Your task to perform on an android device: star an email in the gmail app Image 0: 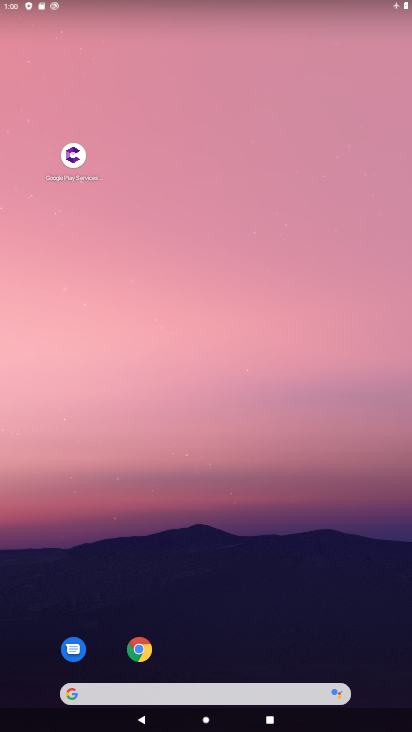
Step 0: drag from (227, 580) to (251, 163)
Your task to perform on an android device: star an email in the gmail app Image 1: 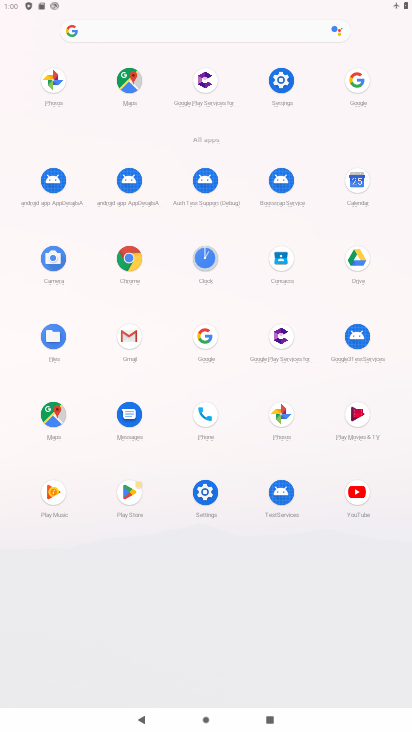
Step 1: click (125, 334)
Your task to perform on an android device: star an email in the gmail app Image 2: 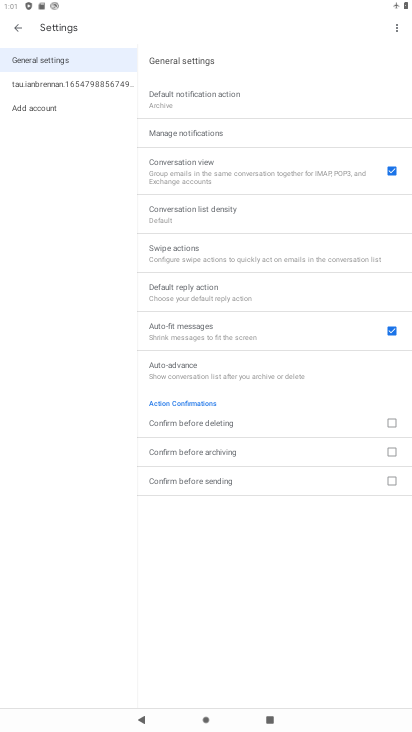
Step 2: press back button
Your task to perform on an android device: star an email in the gmail app Image 3: 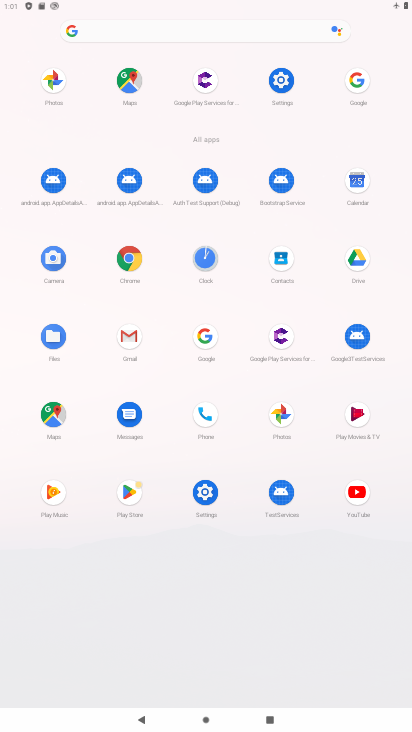
Step 3: click (127, 336)
Your task to perform on an android device: star an email in the gmail app Image 4: 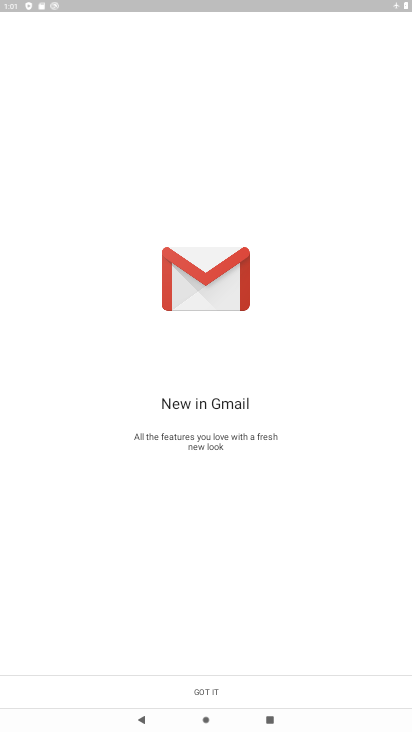
Step 4: click (208, 688)
Your task to perform on an android device: star an email in the gmail app Image 5: 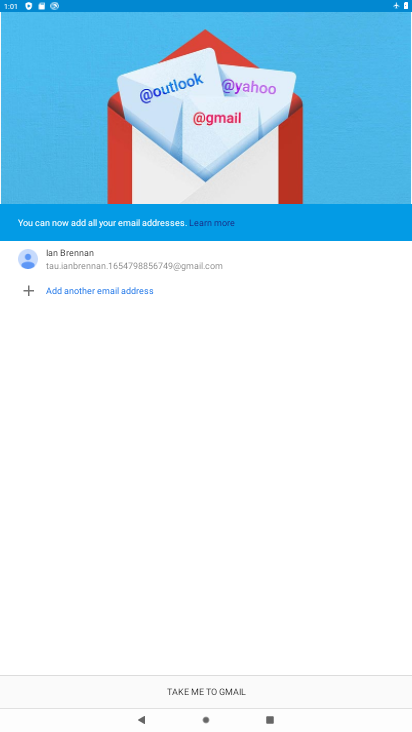
Step 5: click (208, 688)
Your task to perform on an android device: star an email in the gmail app Image 6: 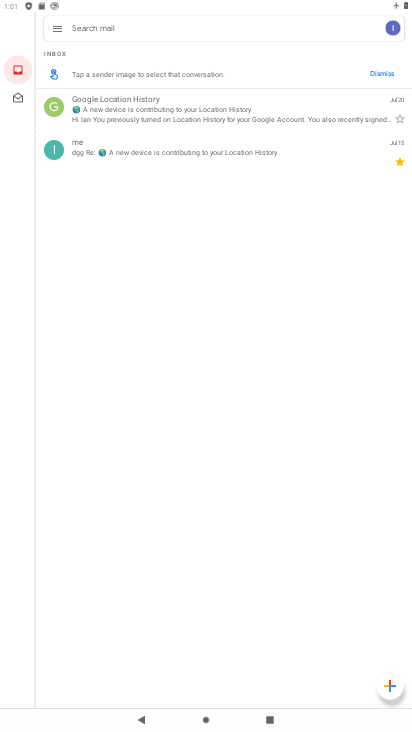
Step 6: click (401, 119)
Your task to perform on an android device: star an email in the gmail app Image 7: 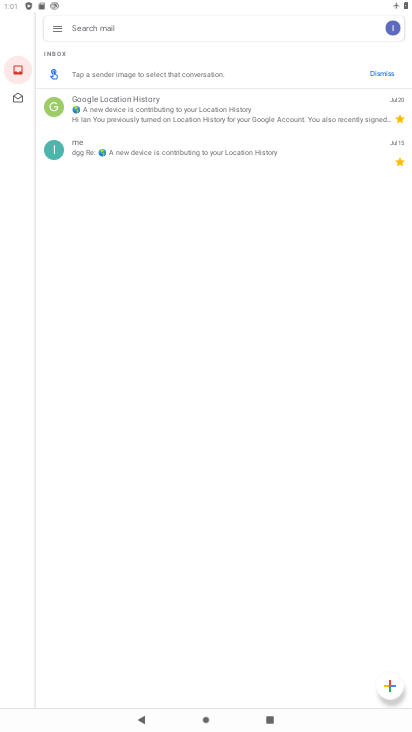
Step 7: task complete